Your task to perform on an android device: Open Yahoo.com Image 0: 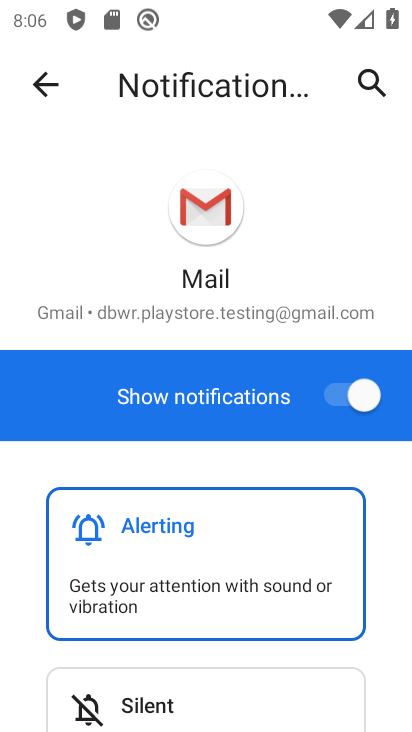
Step 0: press home button
Your task to perform on an android device: Open Yahoo.com Image 1: 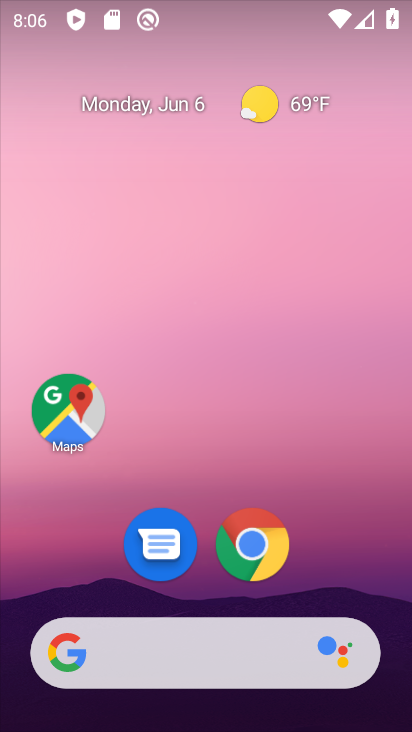
Step 1: drag from (201, 578) to (253, 220)
Your task to perform on an android device: Open Yahoo.com Image 2: 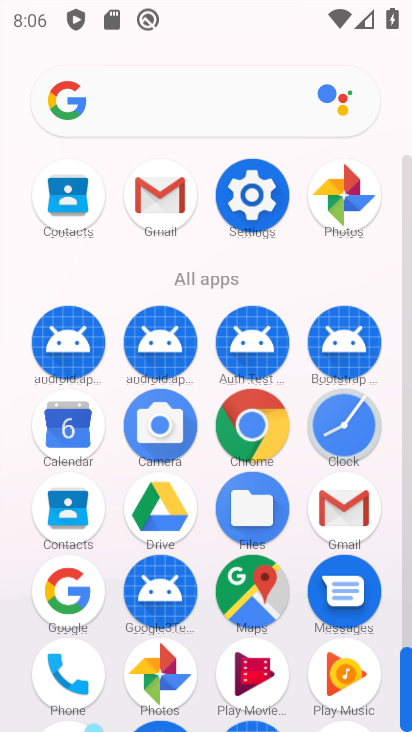
Step 2: click (254, 426)
Your task to perform on an android device: Open Yahoo.com Image 3: 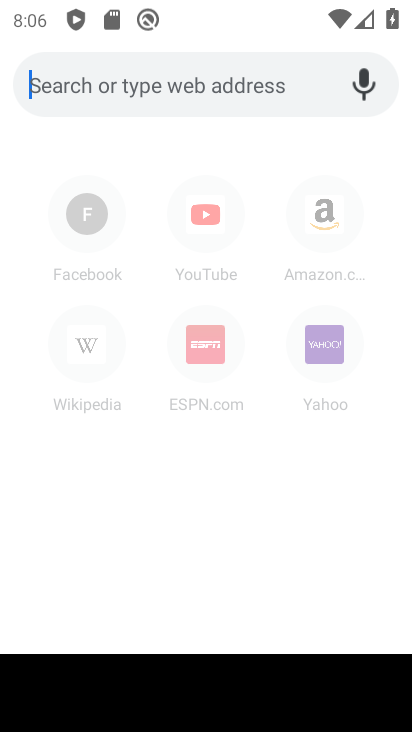
Step 3: type "Yahoo.com"
Your task to perform on an android device: Open Yahoo.com Image 4: 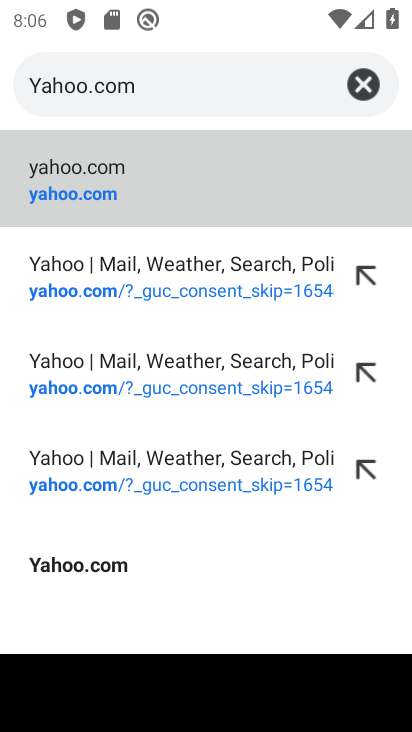
Step 4: click (62, 189)
Your task to perform on an android device: Open Yahoo.com Image 5: 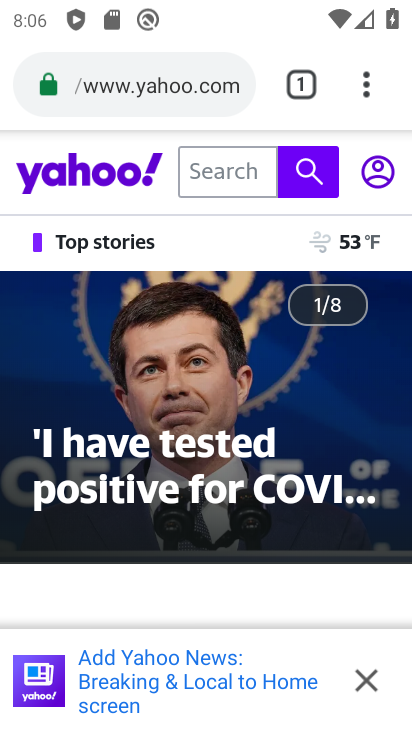
Step 5: task complete